Your task to perform on an android device: Go to Maps Image 0: 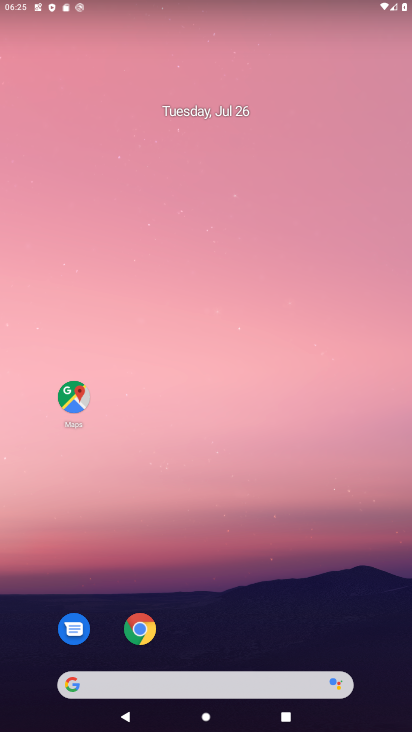
Step 0: click (75, 403)
Your task to perform on an android device: Go to Maps Image 1: 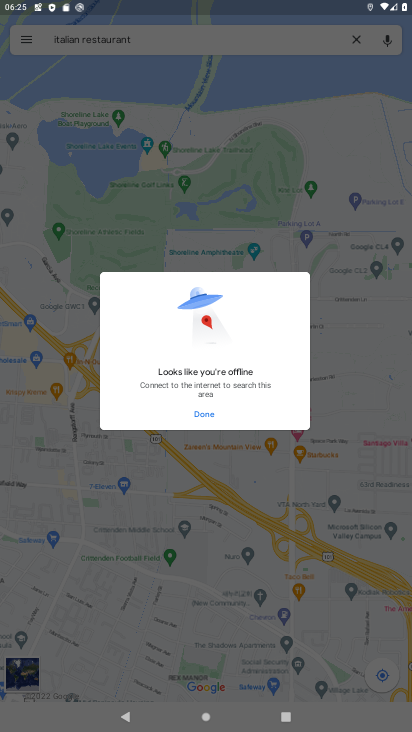
Step 1: task complete